Your task to perform on an android device: Open Chrome and go to the settings page Image 0: 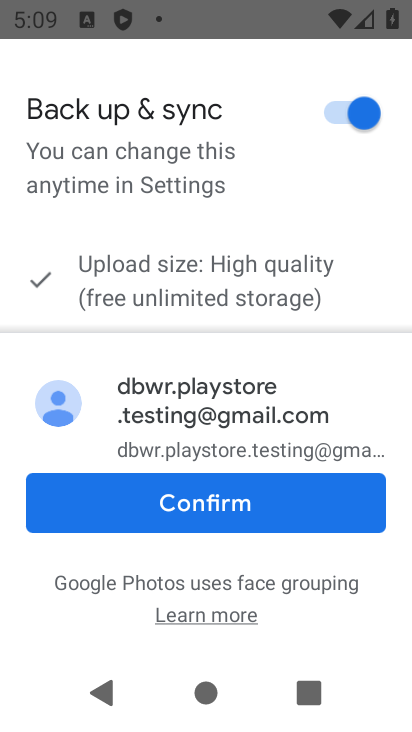
Step 0: press home button
Your task to perform on an android device: Open Chrome and go to the settings page Image 1: 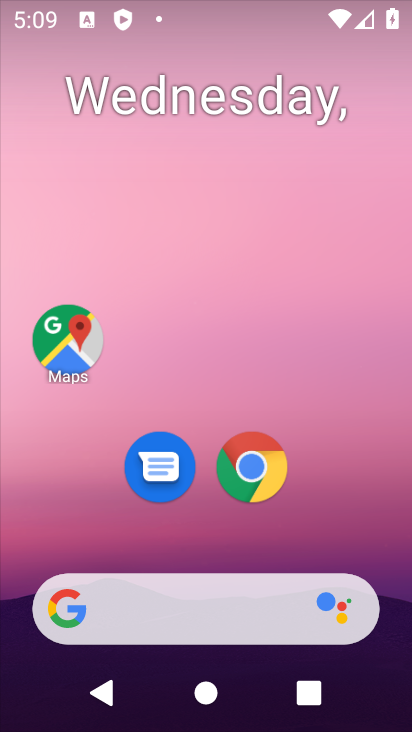
Step 1: click (255, 445)
Your task to perform on an android device: Open Chrome and go to the settings page Image 2: 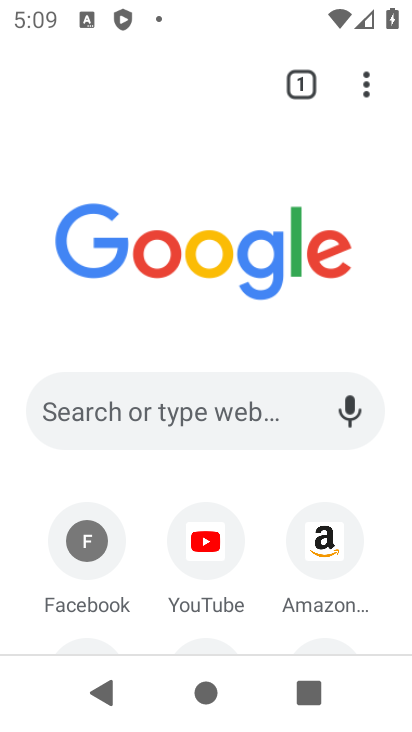
Step 2: click (371, 89)
Your task to perform on an android device: Open Chrome and go to the settings page Image 3: 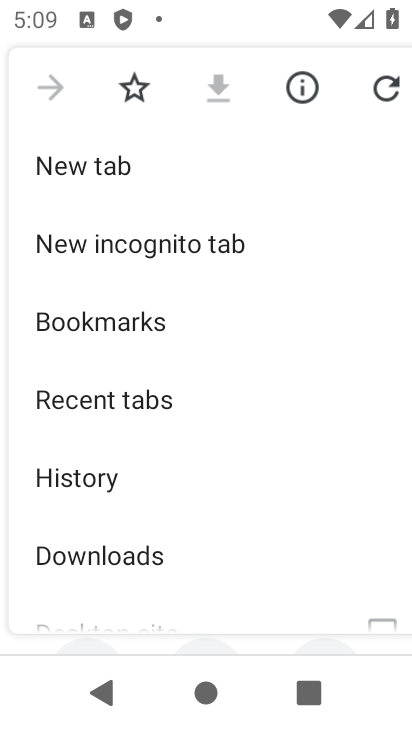
Step 3: drag from (190, 498) to (170, 145)
Your task to perform on an android device: Open Chrome and go to the settings page Image 4: 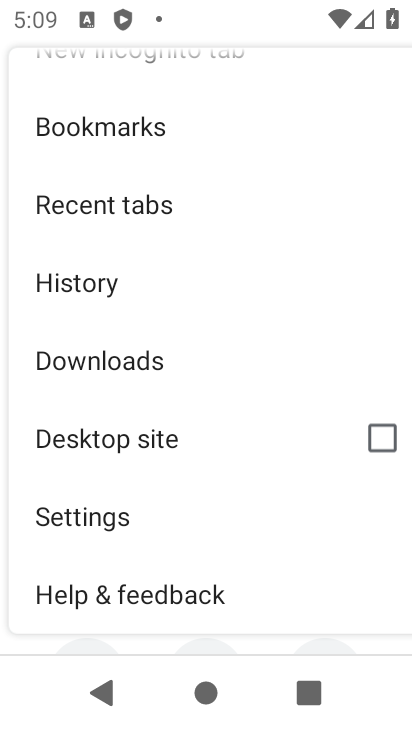
Step 4: click (153, 510)
Your task to perform on an android device: Open Chrome and go to the settings page Image 5: 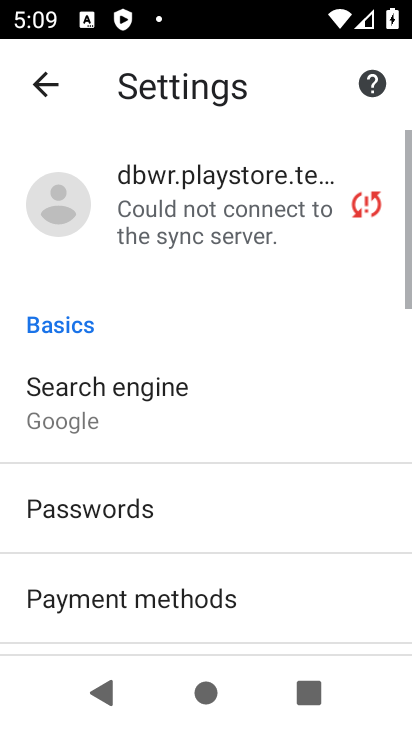
Step 5: task complete